Your task to perform on an android device: turn on bluetooth scan Image 0: 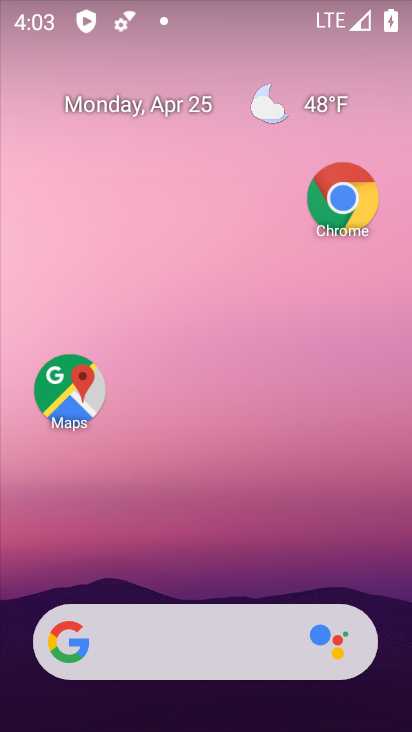
Step 0: drag from (189, 647) to (361, 59)
Your task to perform on an android device: turn on bluetooth scan Image 1: 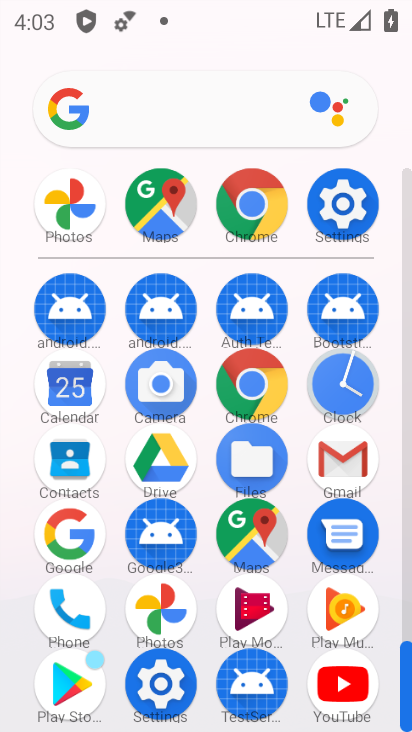
Step 1: click (349, 212)
Your task to perform on an android device: turn on bluetooth scan Image 2: 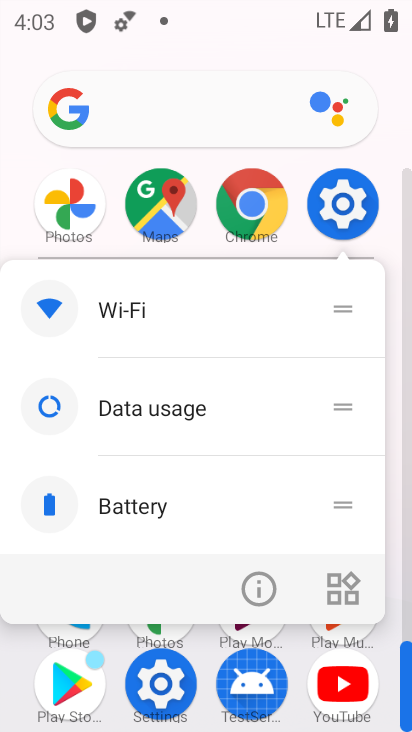
Step 2: click (338, 201)
Your task to perform on an android device: turn on bluetooth scan Image 3: 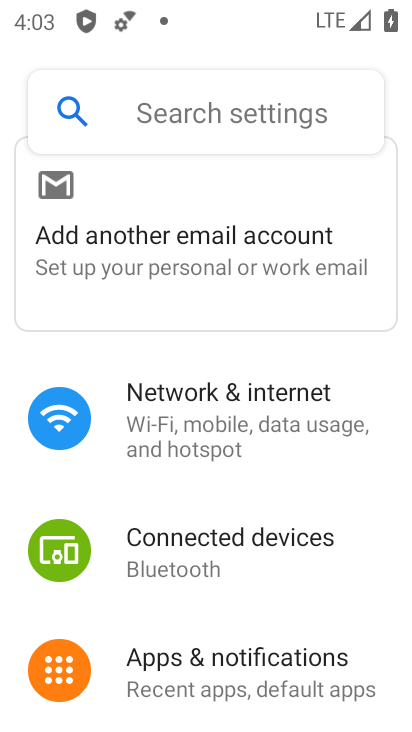
Step 3: drag from (198, 555) to (381, 164)
Your task to perform on an android device: turn on bluetooth scan Image 4: 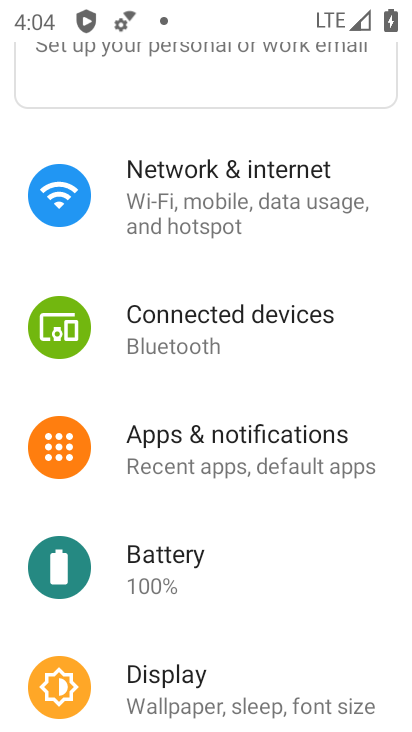
Step 4: drag from (238, 570) to (381, 90)
Your task to perform on an android device: turn on bluetooth scan Image 5: 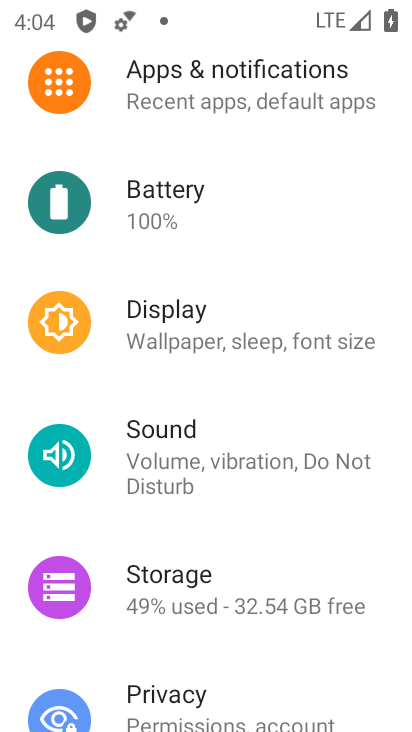
Step 5: drag from (215, 563) to (390, 93)
Your task to perform on an android device: turn on bluetooth scan Image 6: 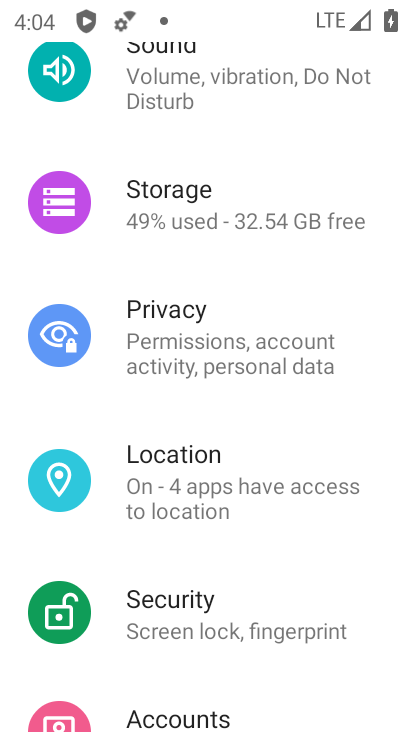
Step 6: click (182, 451)
Your task to perform on an android device: turn on bluetooth scan Image 7: 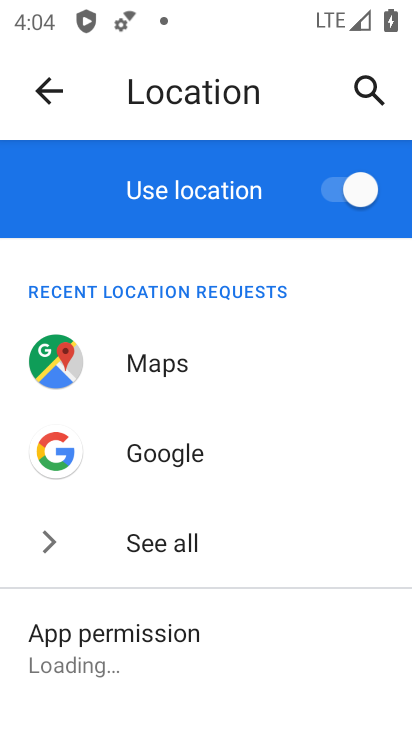
Step 7: drag from (222, 655) to (352, 242)
Your task to perform on an android device: turn on bluetooth scan Image 8: 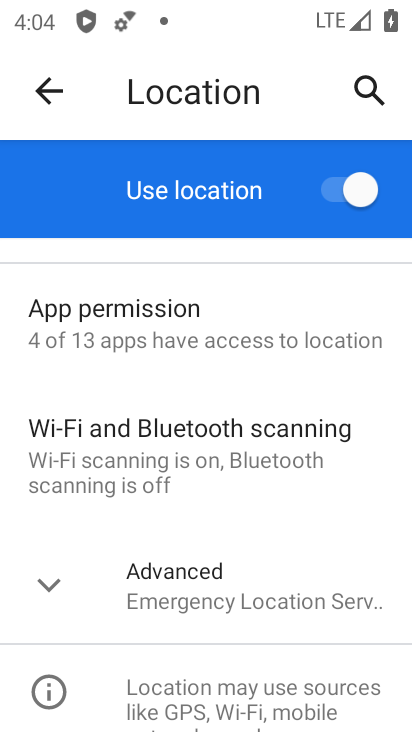
Step 8: click (228, 424)
Your task to perform on an android device: turn on bluetooth scan Image 9: 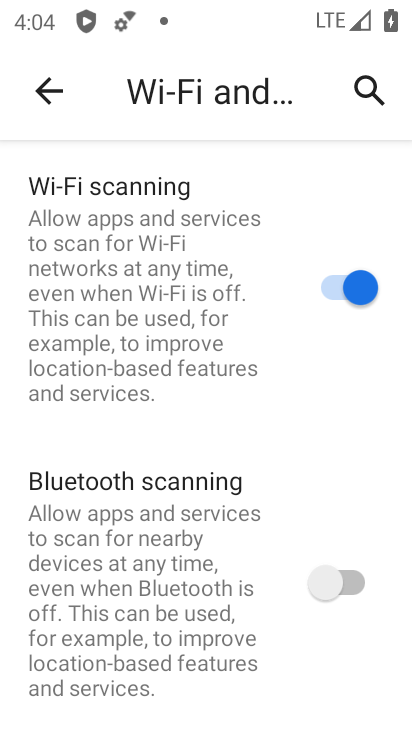
Step 9: click (348, 579)
Your task to perform on an android device: turn on bluetooth scan Image 10: 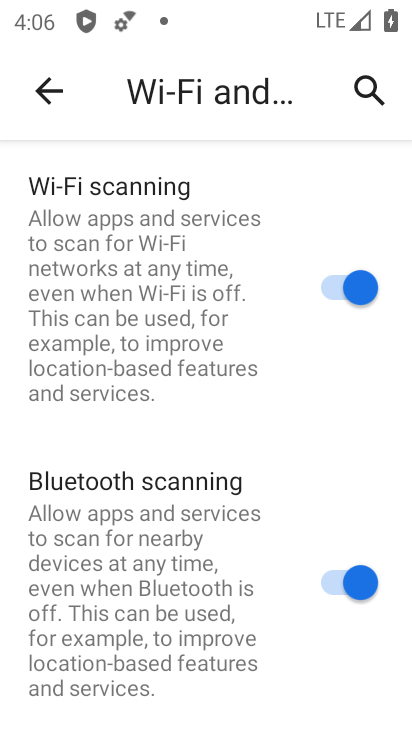
Step 10: task complete